Your task to perform on an android device: change keyboard looks Image 0: 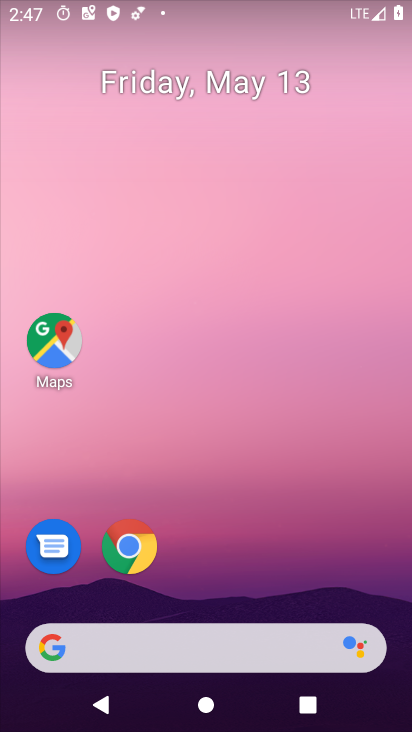
Step 0: drag from (252, 441) to (252, 181)
Your task to perform on an android device: change keyboard looks Image 1: 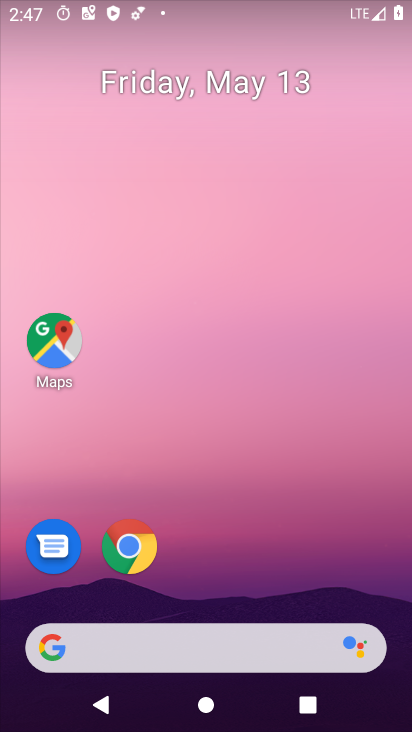
Step 1: drag from (212, 508) to (240, 93)
Your task to perform on an android device: change keyboard looks Image 2: 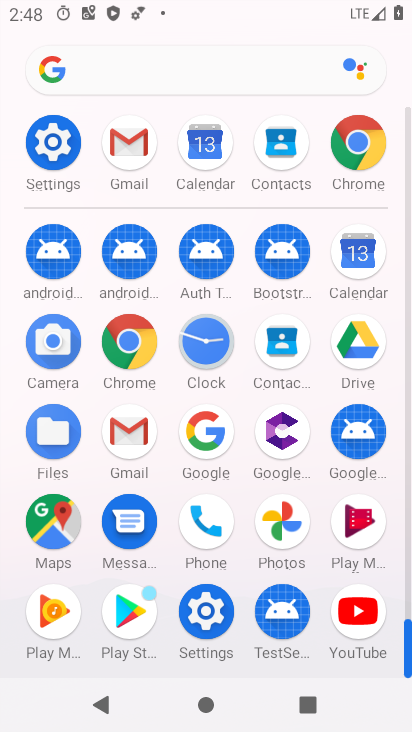
Step 2: click (12, 157)
Your task to perform on an android device: change keyboard looks Image 3: 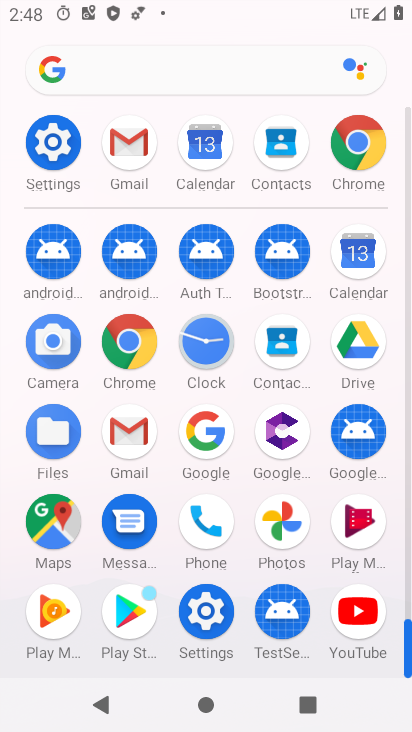
Step 3: click (48, 176)
Your task to perform on an android device: change keyboard looks Image 4: 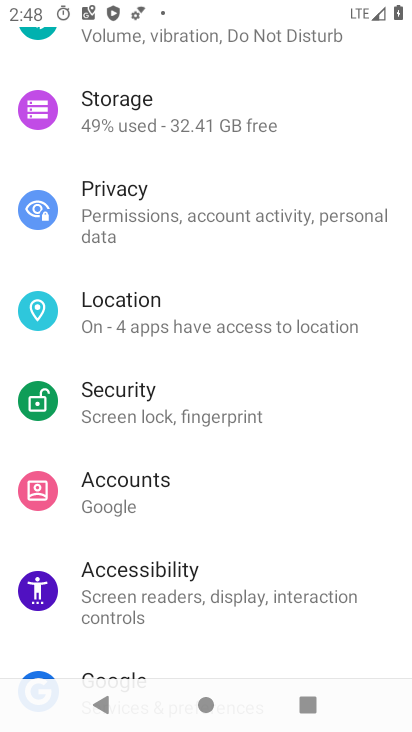
Step 4: drag from (165, 494) to (230, 231)
Your task to perform on an android device: change keyboard looks Image 5: 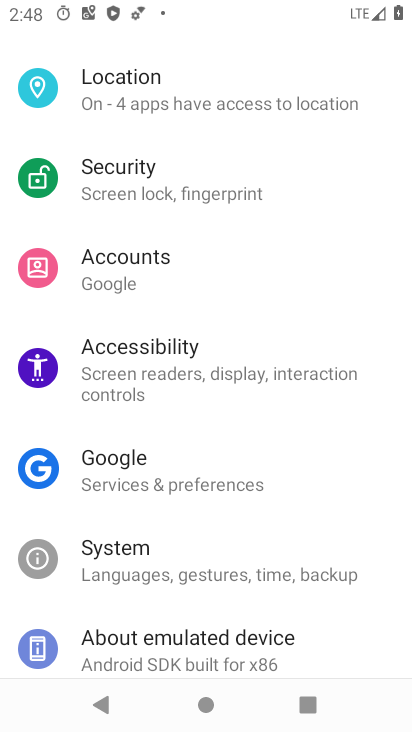
Step 5: drag from (209, 357) to (166, 635)
Your task to perform on an android device: change keyboard looks Image 6: 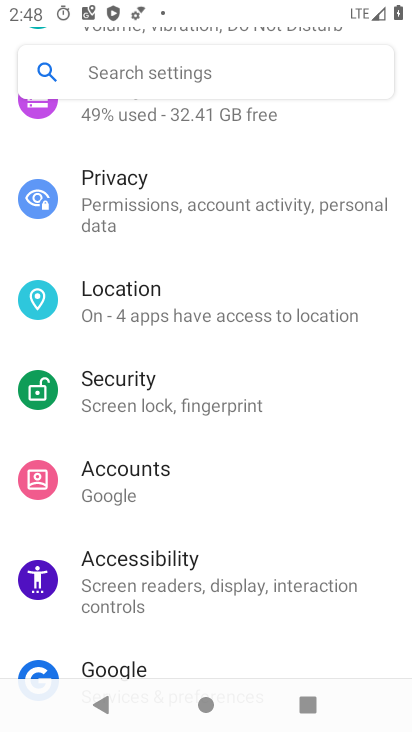
Step 6: drag from (216, 498) to (178, 628)
Your task to perform on an android device: change keyboard looks Image 7: 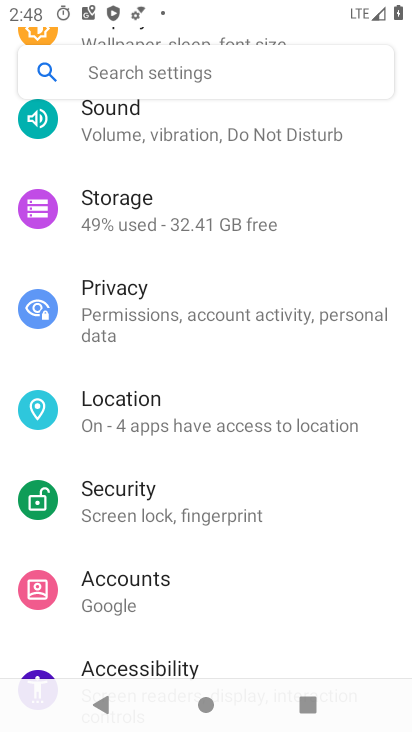
Step 7: drag from (172, 415) to (123, 605)
Your task to perform on an android device: change keyboard looks Image 8: 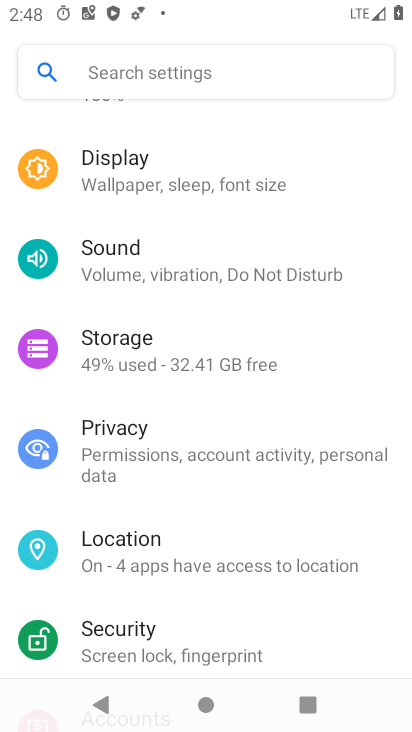
Step 8: drag from (148, 518) to (185, 248)
Your task to perform on an android device: change keyboard looks Image 9: 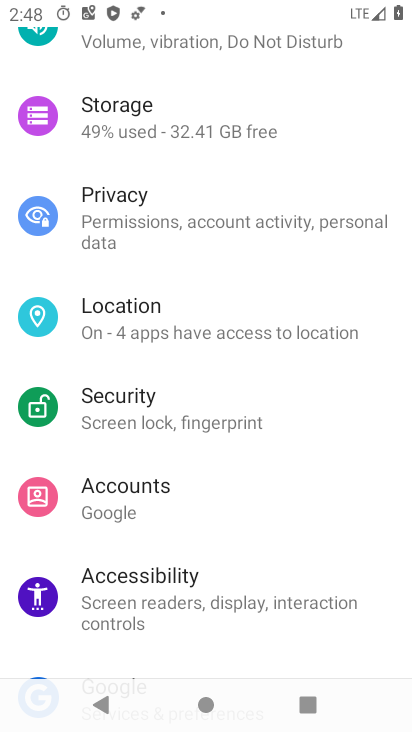
Step 9: drag from (144, 493) to (176, 274)
Your task to perform on an android device: change keyboard looks Image 10: 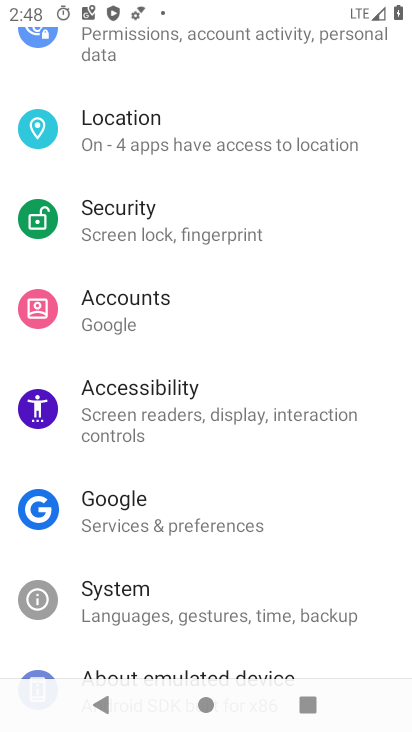
Step 10: drag from (138, 593) to (222, 215)
Your task to perform on an android device: change keyboard looks Image 11: 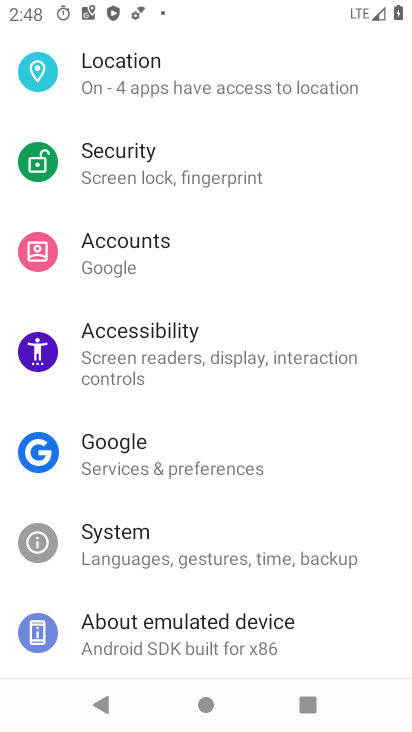
Step 11: click (176, 549)
Your task to perform on an android device: change keyboard looks Image 12: 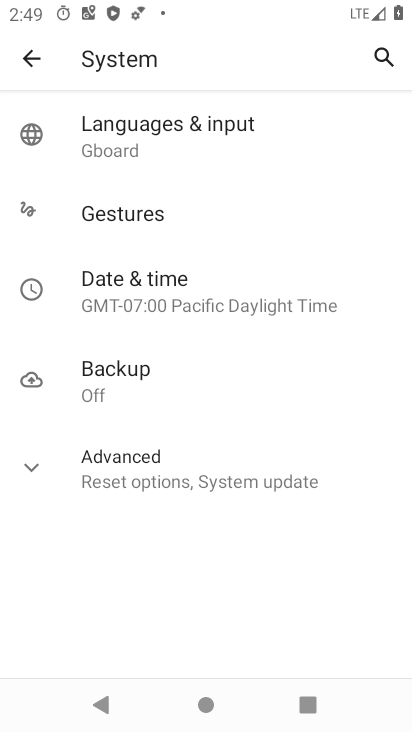
Step 12: click (168, 161)
Your task to perform on an android device: change keyboard looks Image 13: 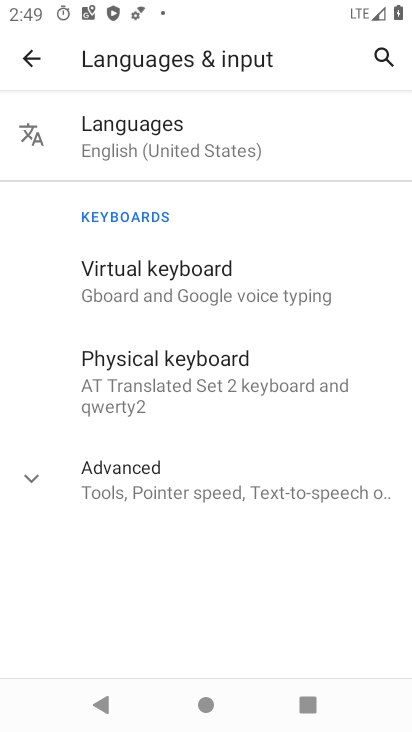
Step 13: click (160, 267)
Your task to perform on an android device: change keyboard looks Image 14: 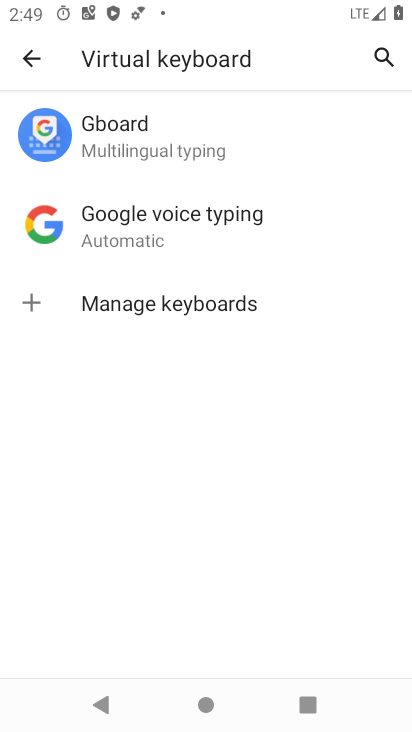
Step 14: click (176, 142)
Your task to perform on an android device: change keyboard looks Image 15: 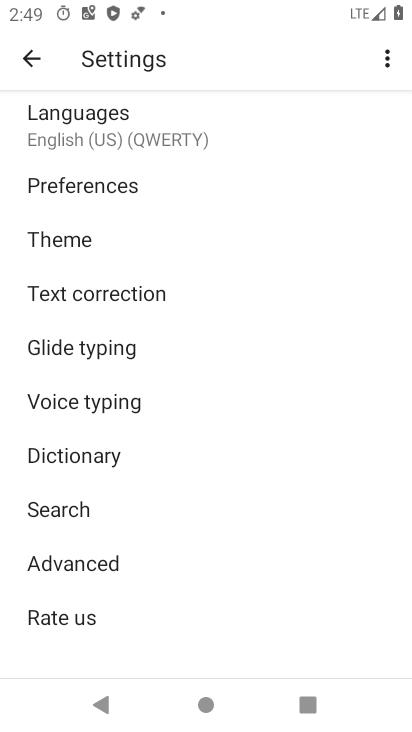
Step 15: click (115, 233)
Your task to perform on an android device: change keyboard looks Image 16: 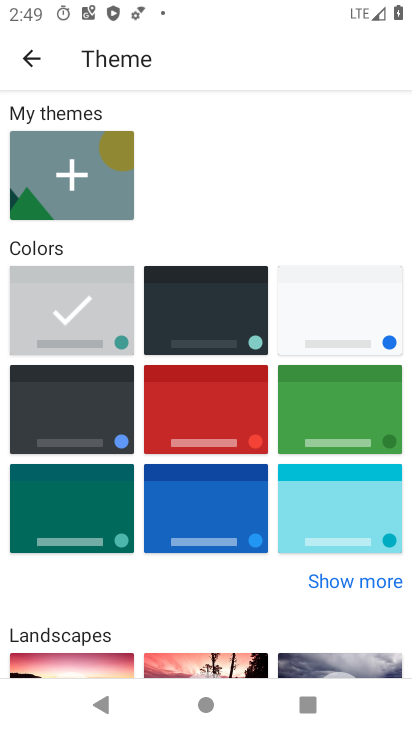
Step 16: click (185, 346)
Your task to perform on an android device: change keyboard looks Image 17: 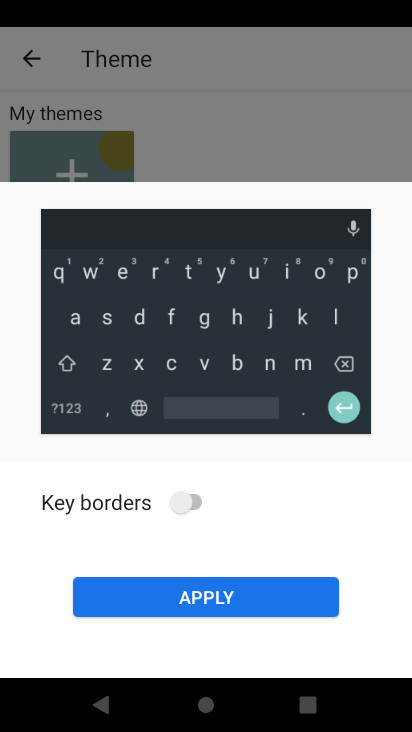
Step 17: click (222, 594)
Your task to perform on an android device: change keyboard looks Image 18: 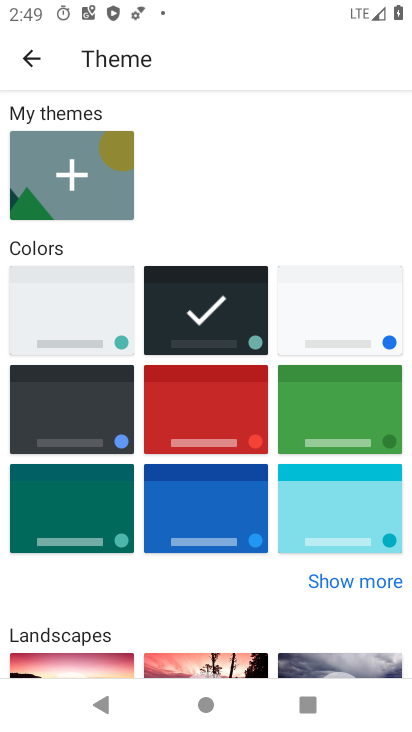
Step 18: task complete